Your task to perform on an android device: What is the recent news? Image 0: 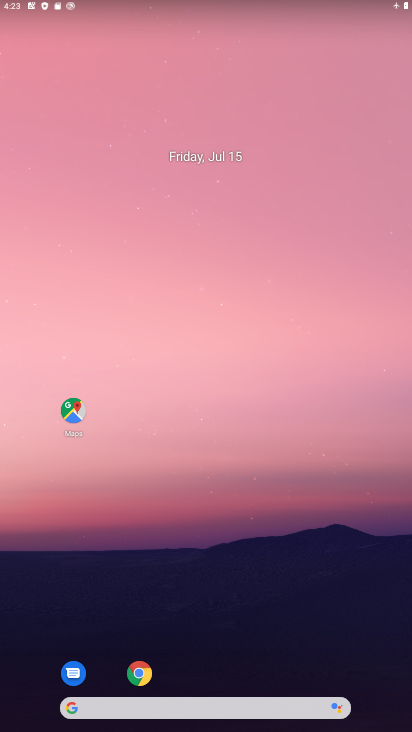
Step 0: click (144, 678)
Your task to perform on an android device: What is the recent news? Image 1: 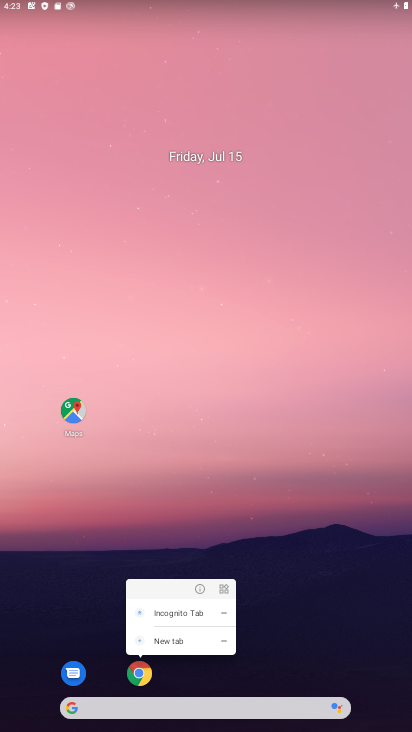
Step 1: click (144, 678)
Your task to perform on an android device: What is the recent news? Image 2: 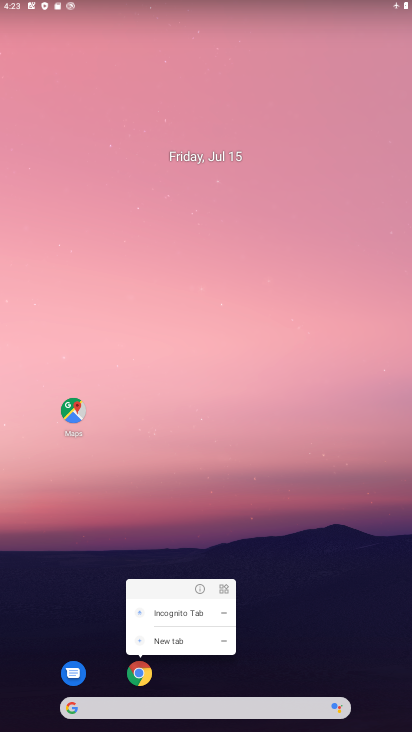
Step 2: click (144, 678)
Your task to perform on an android device: What is the recent news? Image 3: 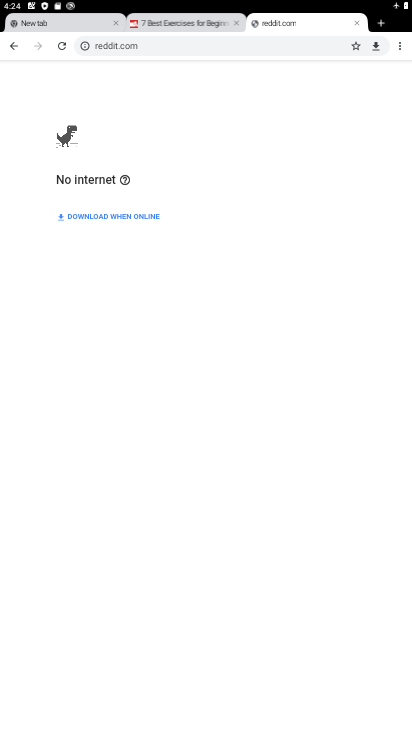
Step 3: click (380, 25)
Your task to perform on an android device: What is the recent news? Image 4: 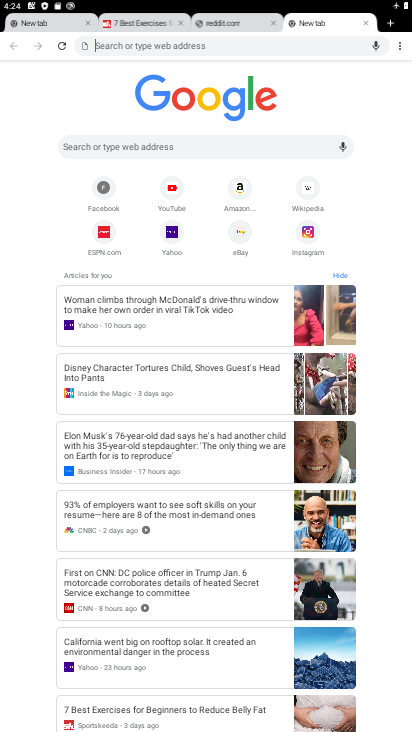
Step 4: click (223, 44)
Your task to perform on an android device: What is the recent news? Image 5: 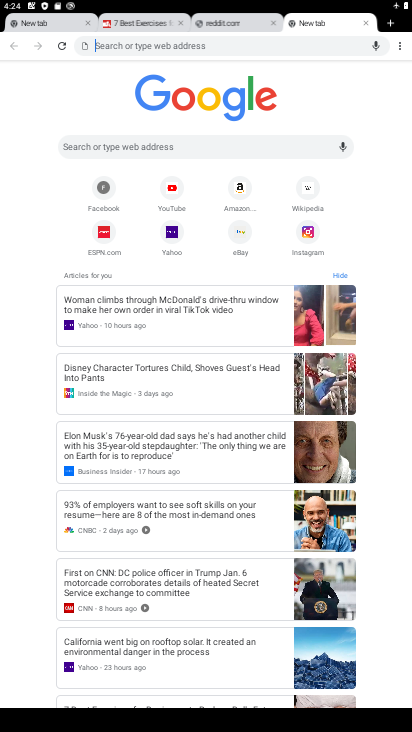
Step 5: type "What is the recent news "
Your task to perform on an android device: What is the recent news? Image 6: 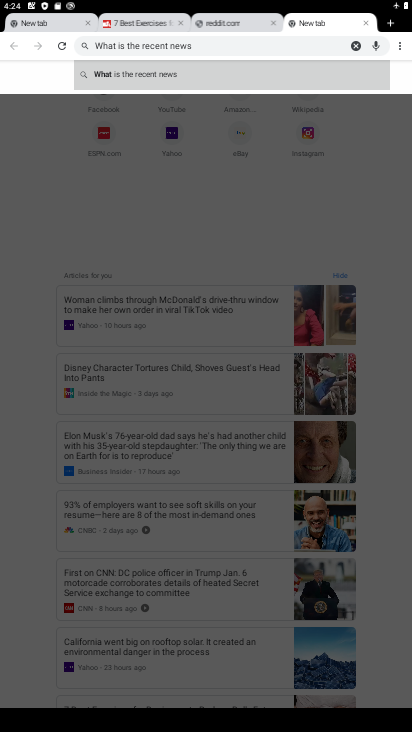
Step 6: click (221, 64)
Your task to perform on an android device: What is the recent news? Image 7: 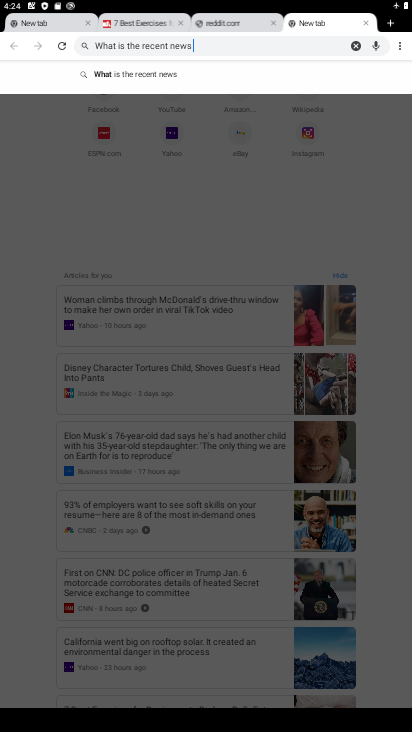
Step 7: click (227, 79)
Your task to perform on an android device: What is the recent news? Image 8: 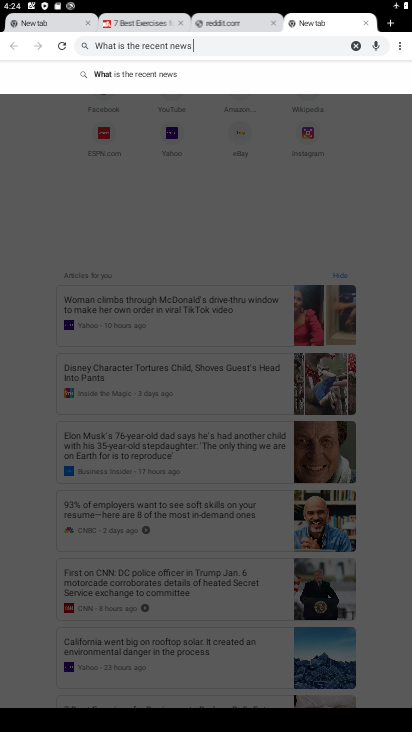
Step 8: click (136, 81)
Your task to perform on an android device: What is the recent news? Image 9: 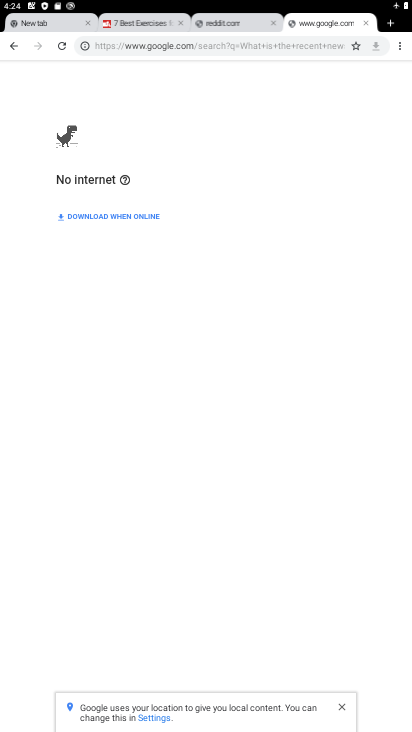
Step 9: task complete